Your task to perform on an android device: turn on data saver in the chrome app Image 0: 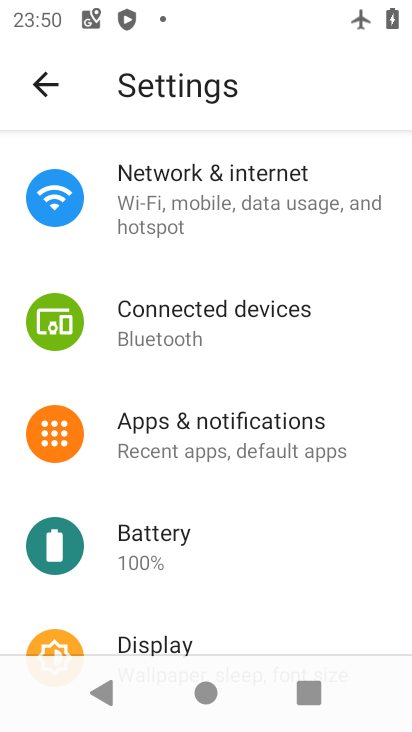
Step 0: press home button
Your task to perform on an android device: turn on data saver in the chrome app Image 1: 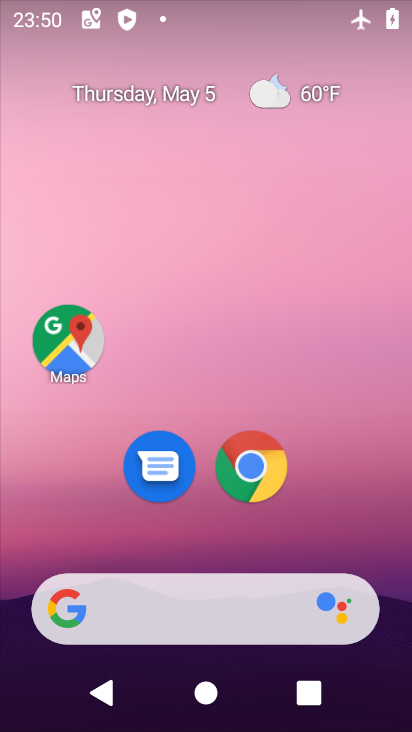
Step 1: drag from (187, 554) to (209, 240)
Your task to perform on an android device: turn on data saver in the chrome app Image 2: 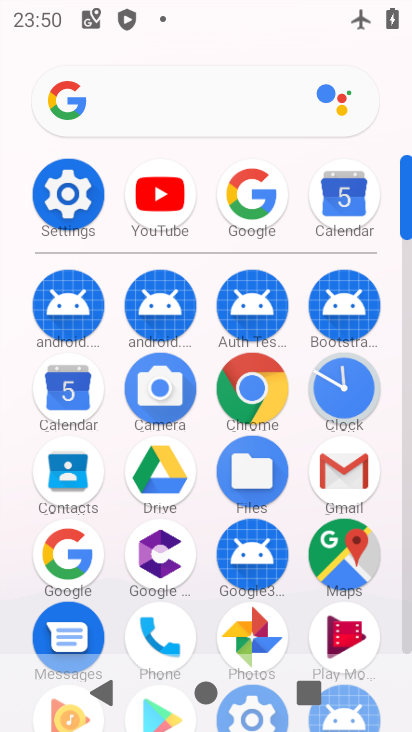
Step 2: click (247, 390)
Your task to perform on an android device: turn on data saver in the chrome app Image 3: 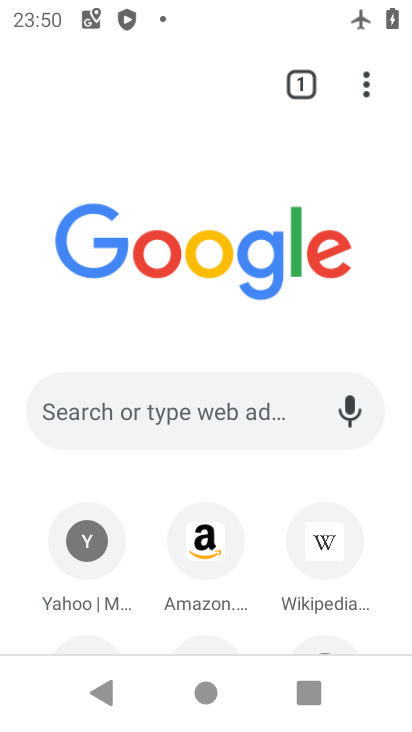
Step 3: click (370, 85)
Your task to perform on an android device: turn on data saver in the chrome app Image 4: 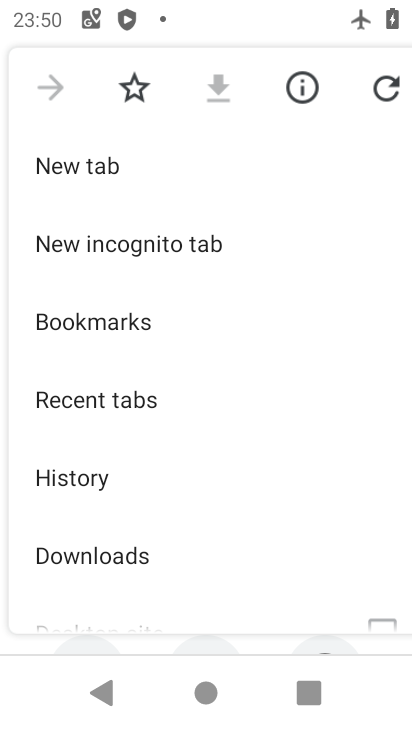
Step 4: drag from (150, 589) to (154, 295)
Your task to perform on an android device: turn on data saver in the chrome app Image 5: 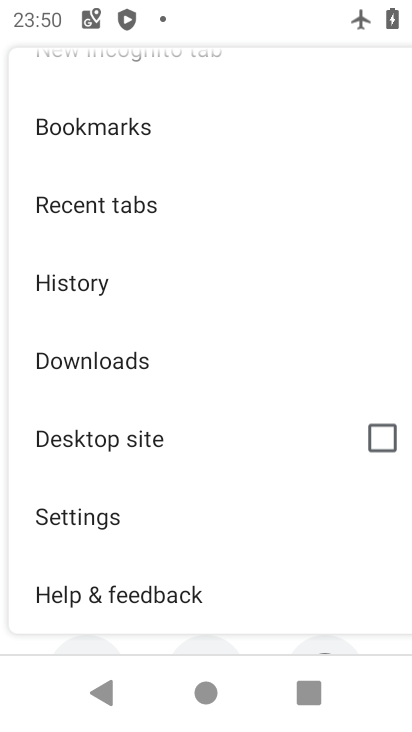
Step 5: click (61, 524)
Your task to perform on an android device: turn on data saver in the chrome app Image 6: 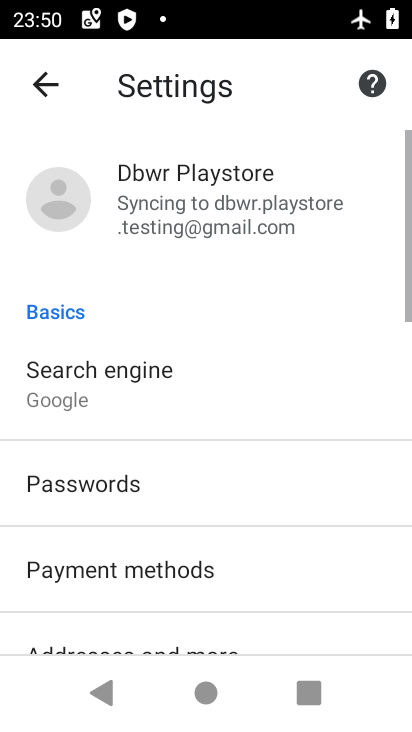
Step 6: drag from (98, 650) to (156, 346)
Your task to perform on an android device: turn on data saver in the chrome app Image 7: 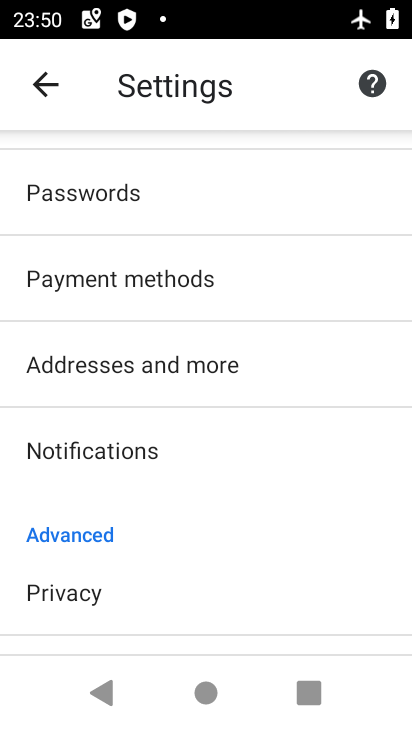
Step 7: drag from (82, 605) to (160, 321)
Your task to perform on an android device: turn on data saver in the chrome app Image 8: 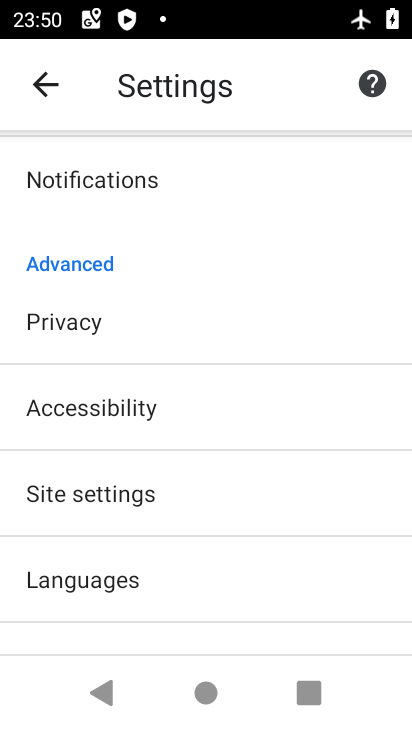
Step 8: click (76, 496)
Your task to perform on an android device: turn on data saver in the chrome app Image 9: 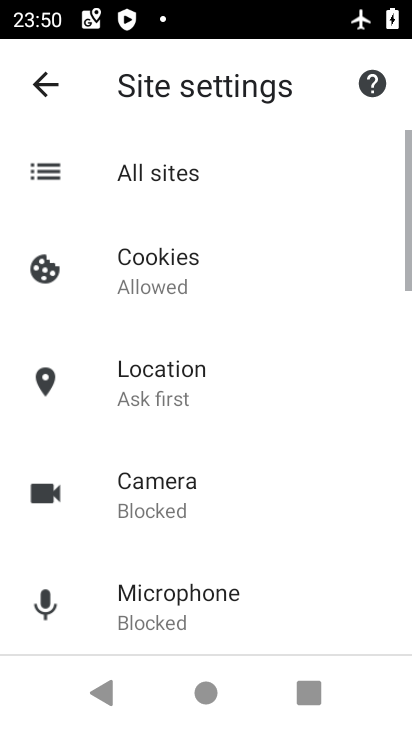
Step 9: click (45, 86)
Your task to perform on an android device: turn on data saver in the chrome app Image 10: 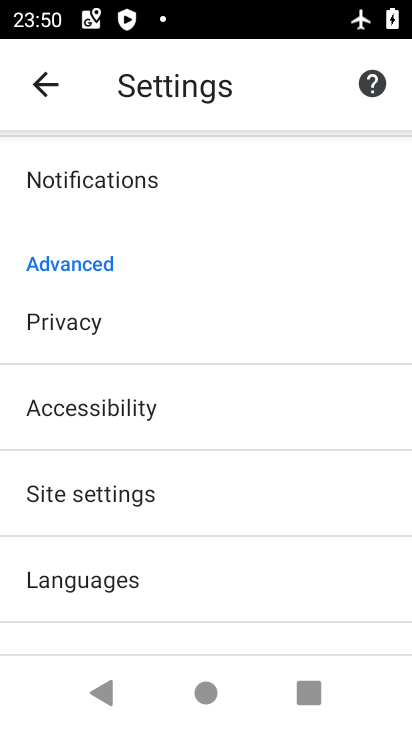
Step 10: drag from (95, 615) to (117, 363)
Your task to perform on an android device: turn on data saver in the chrome app Image 11: 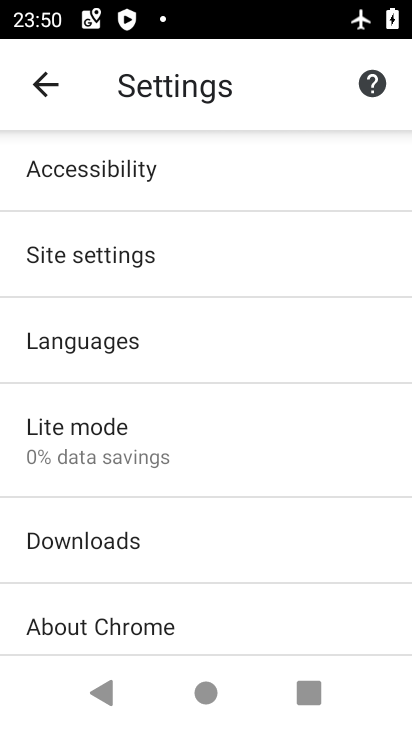
Step 11: click (103, 455)
Your task to perform on an android device: turn on data saver in the chrome app Image 12: 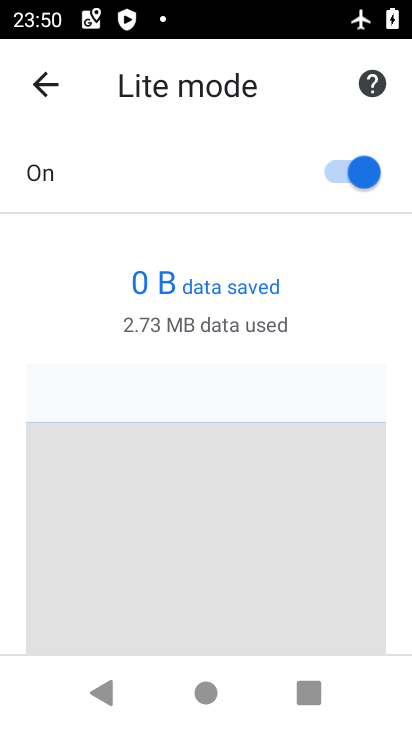
Step 12: task complete